Your task to perform on an android device: What's on my calendar tomorrow? Image 0: 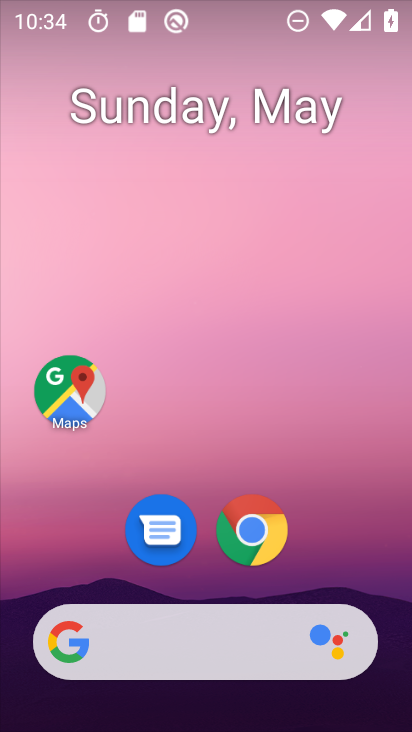
Step 0: click (228, 94)
Your task to perform on an android device: What's on my calendar tomorrow? Image 1: 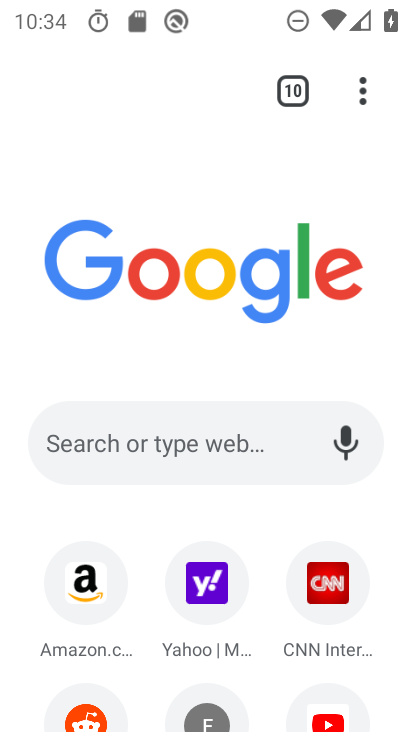
Step 1: press home button
Your task to perform on an android device: What's on my calendar tomorrow? Image 2: 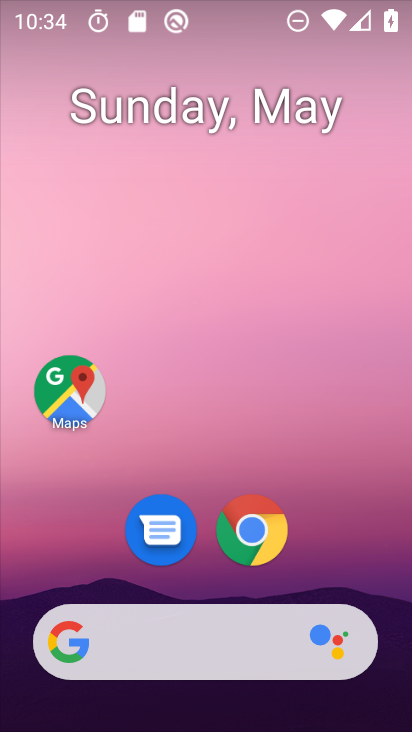
Step 2: drag from (206, 691) to (188, 217)
Your task to perform on an android device: What's on my calendar tomorrow? Image 3: 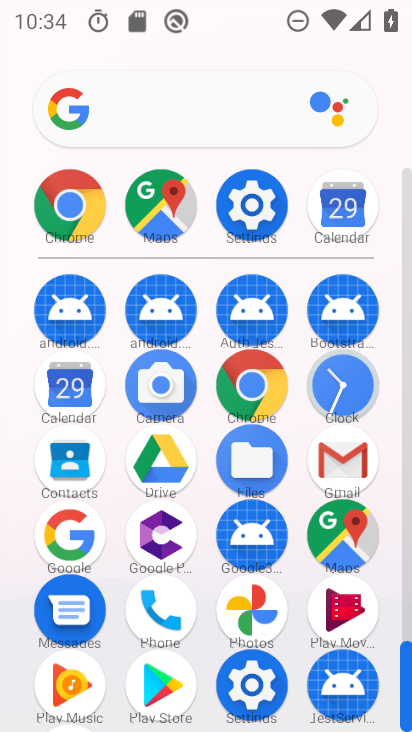
Step 3: click (333, 231)
Your task to perform on an android device: What's on my calendar tomorrow? Image 4: 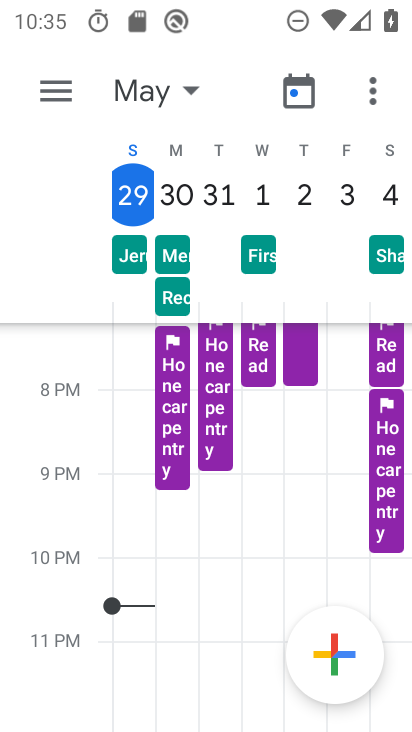
Step 4: click (47, 69)
Your task to perform on an android device: What's on my calendar tomorrow? Image 5: 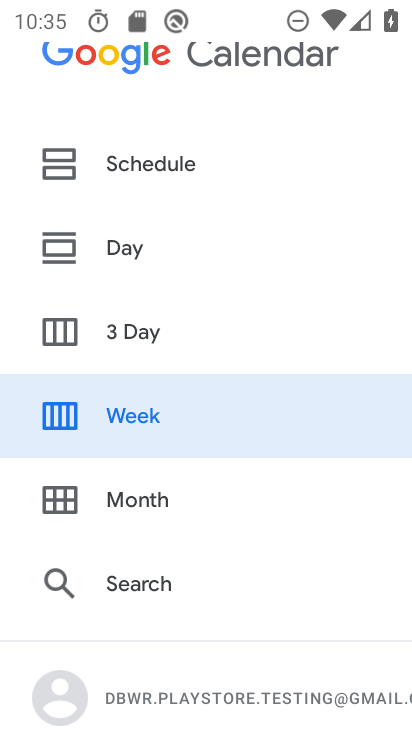
Step 5: click (126, 163)
Your task to perform on an android device: What's on my calendar tomorrow? Image 6: 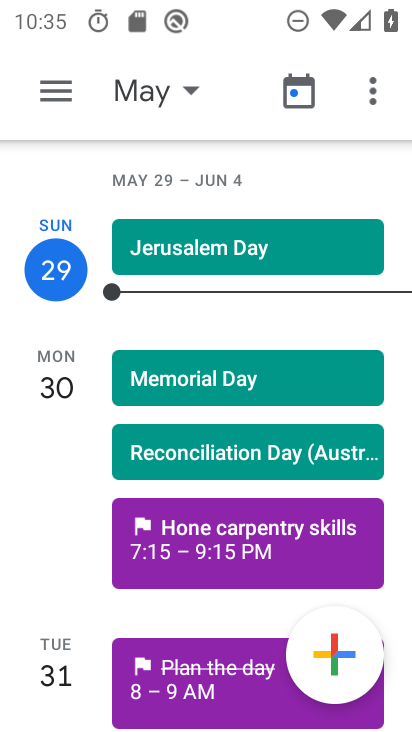
Step 6: task complete